Your task to perform on an android device: turn on improve location accuracy Image 0: 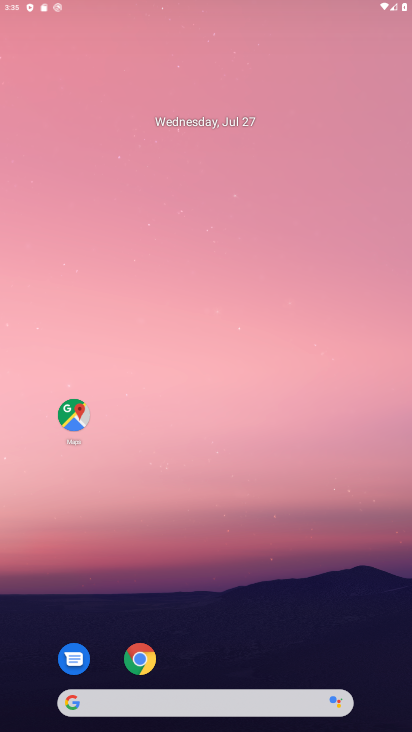
Step 0: drag from (262, 603) to (284, 9)
Your task to perform on an android device: turn on improve location accuracy Image 1: 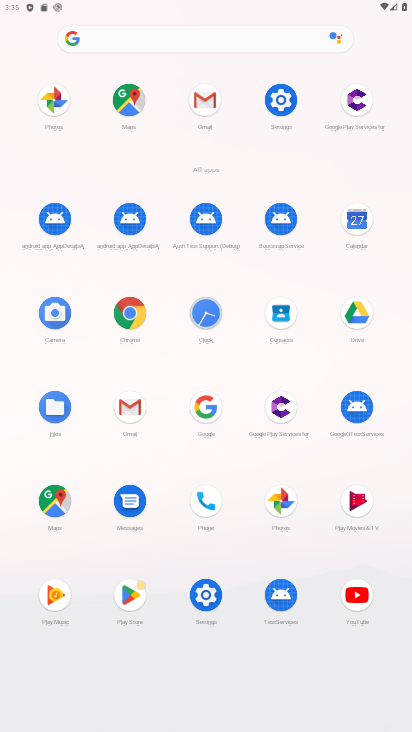
Step 1: click (281, 98)
Your task to perform on an android device: turn on improve location accuracy Image 2: 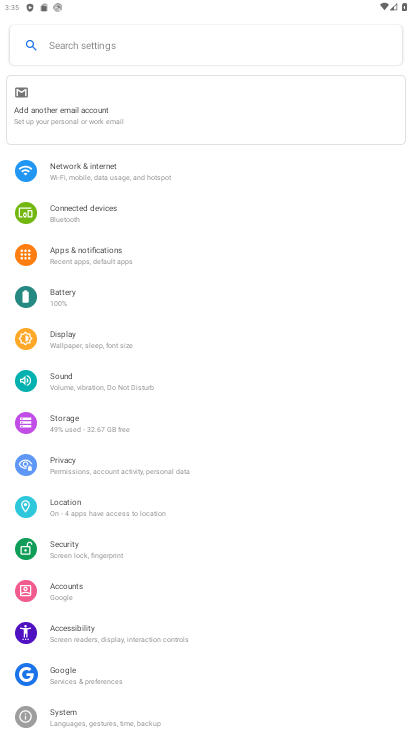
Step 2: click (99, 513)
Your task to perform on an android device: turn on improve location accuracy Image 3: 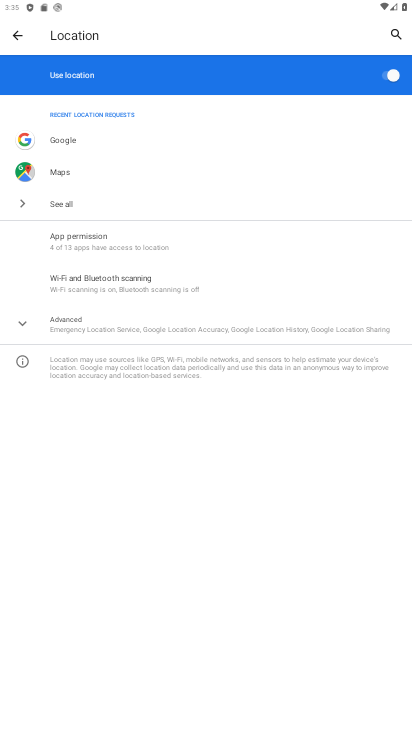
Step 3: click (157, 317)
Your task to perform on an android device: turn on improve location accuracy Image 4: 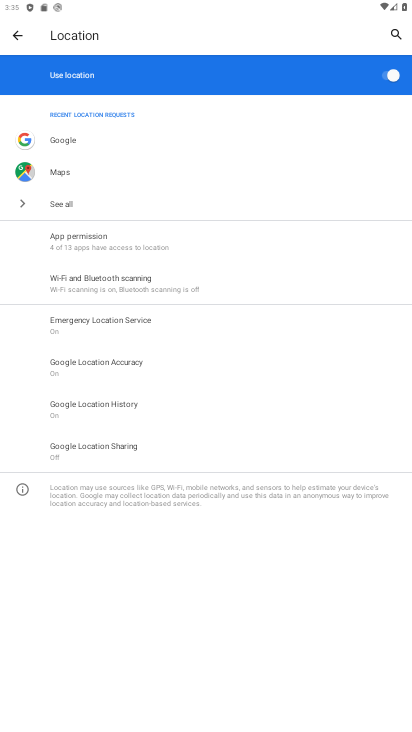
Step 4: click (132, 361)
Your task to perform on an android device: turn on improve location accuracy Image 5: 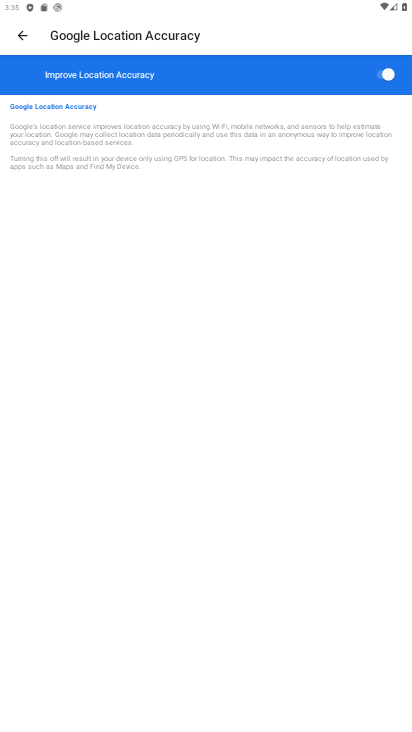
Step 5: task complete